Your task to perform on an android device: Open Maps and search for coffee Image 0: 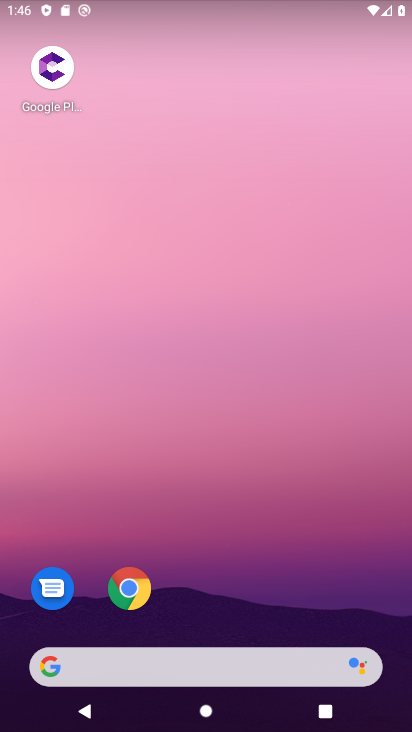
Step 0: drag from (187, 658) to (185, 55)
Your task to perform on an android device: Open Maps and search for coffee Image 1: 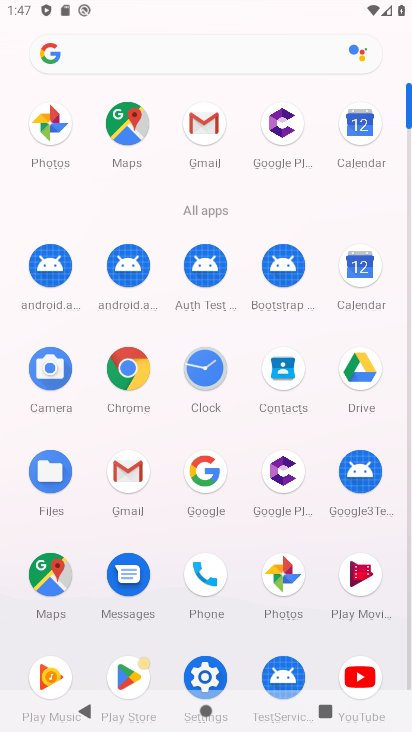
Step 1: click (56, 577)
Your task to perform on an android device: Open Maps and search for coffee Image 2: 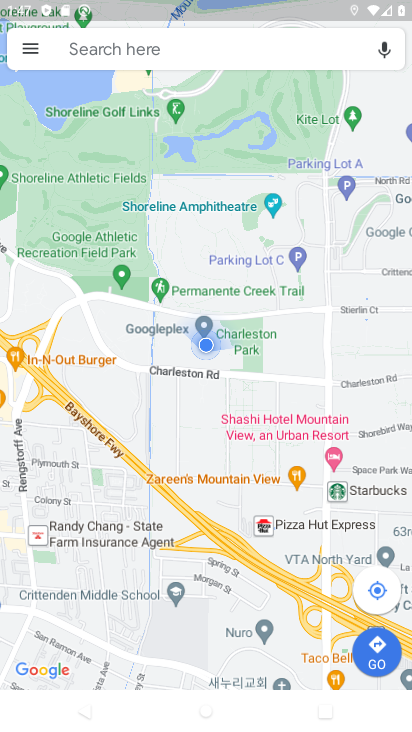
Step 2: click (120, 55)
Your task to perform on an android device: Open Maps and search for coffee Image 3: 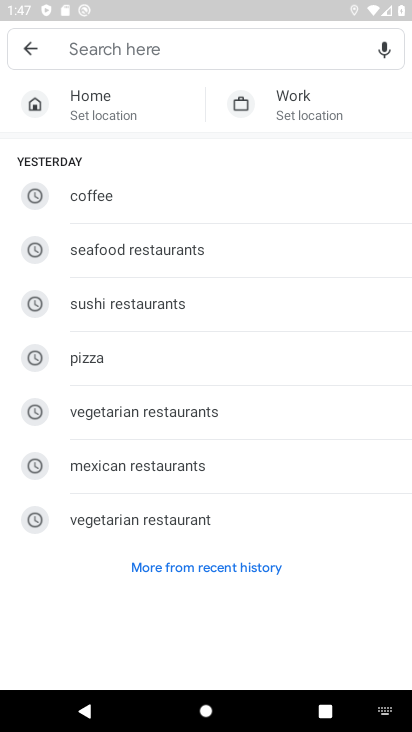
Step 3: type "coffee"
Your task to perform on an android device: Open Maps and search for coffee Image 4: 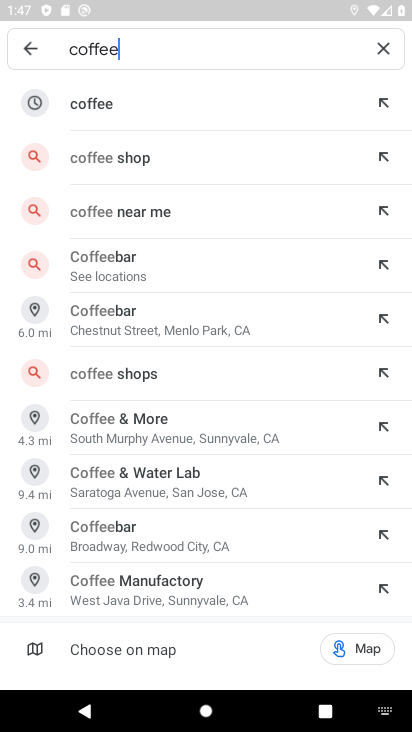
Step 4: click (96, 90)
Your task to perform on an android device: Open Maps and search for coffee Image 5: 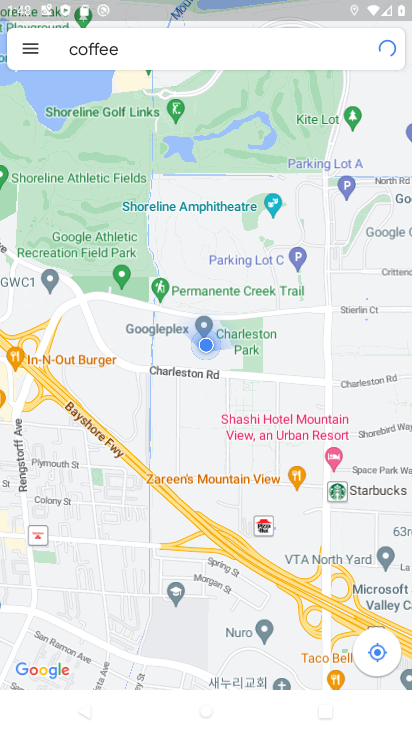
Step 5: task complete